Your task to perform on an android device: Open accessibility settings Image 0: 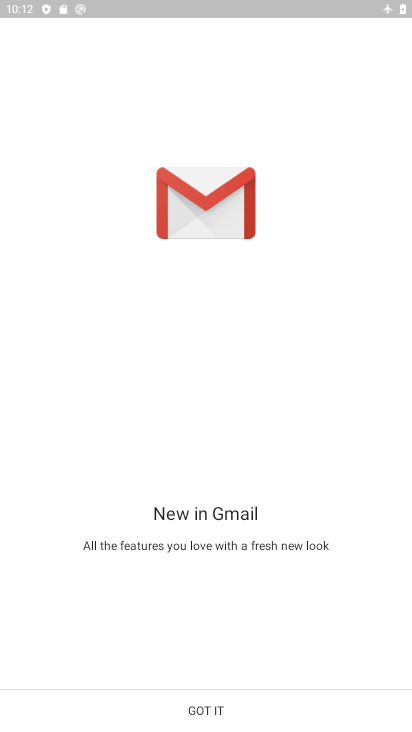
Step 0: press home button
Your task to perform on an android device: Open accessibility settings Image 1: 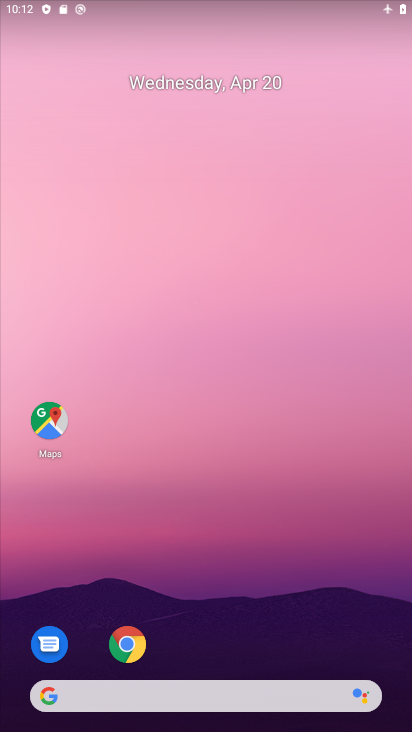
Step 1: drag from (203, 541) to (215, 83)
Your task to perform on an android device: Open accessibility settings Image 2: 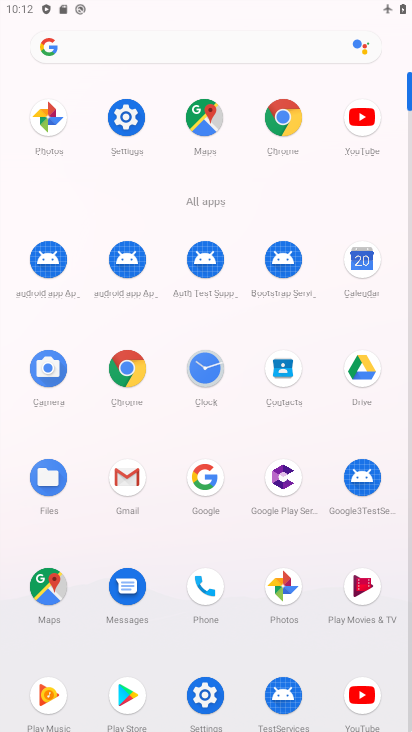
Step 2: click (205, 691)
Your task to perform on an android device: Open accessibility settings Image 3: 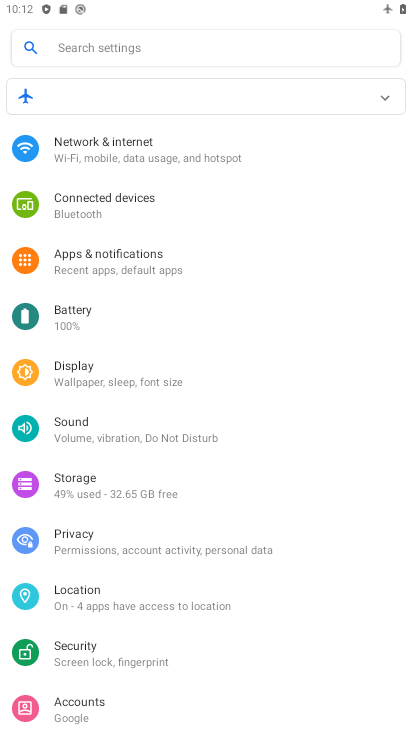
Step 3: drag from (191, 629) to (236, 154)
Your task to perform on an android device: Open accessibility settings Image 4: 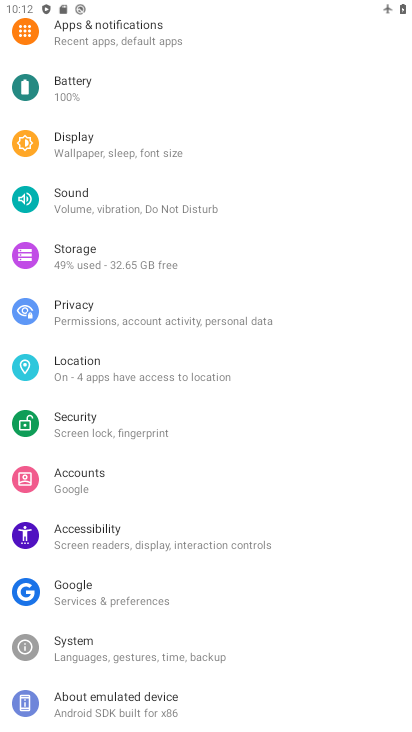
Step 4: click (110, 539)
Your task to perform on an android device: Open accessibility settings Image 5: 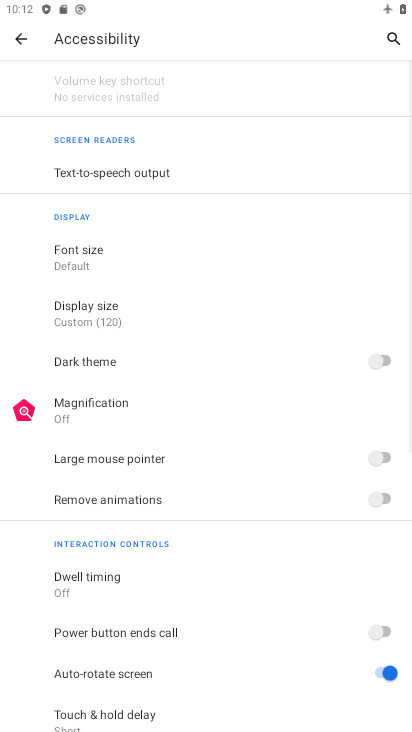
Step 5: task complete